Your task to perform on an android device: Open accessibility settings Image 0: 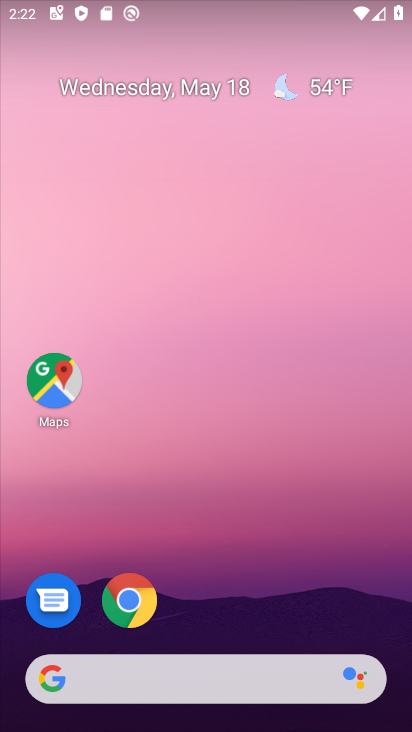
Step 0: drag from (212, 620) to (211, 294)
Your task to perform on an android device: Open accessibility settings Image 1: 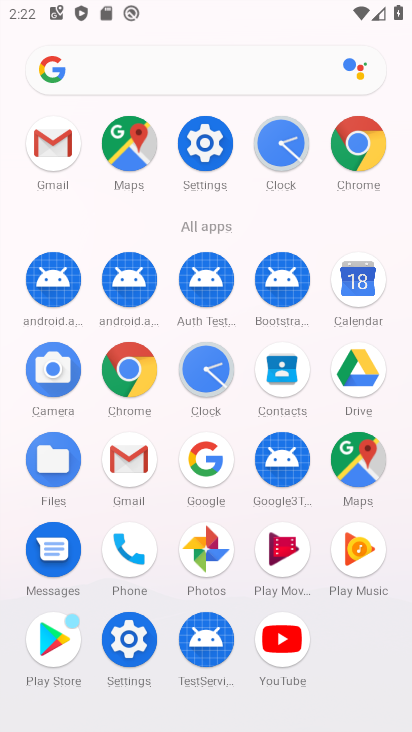
Step 1: click (135, 632)
Your task to perform on an android device: Open accessibility settings Image 2: 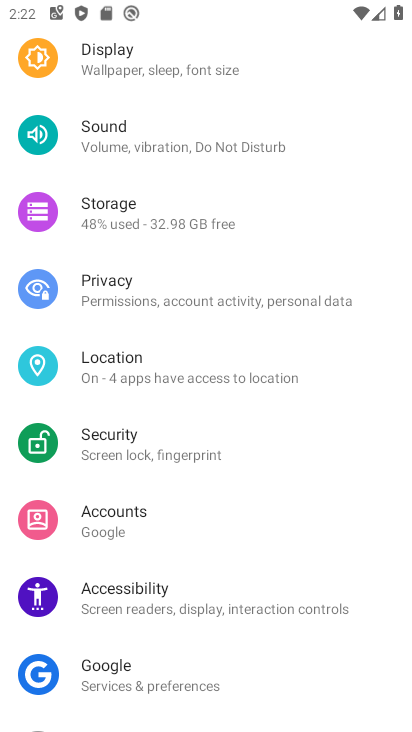
Step 2: click (134, 574)
Your task to perform on an android device: Open accessibility settings Image 3: 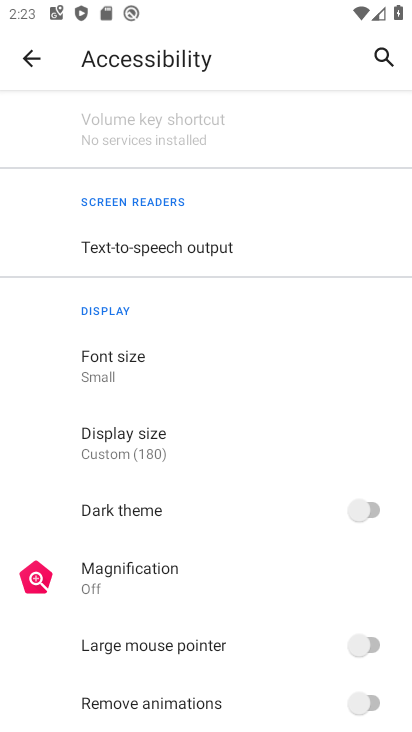
Step 3: task complete